Your task to perform on an android device: Search for "asus rog" on amazon.com, select the first entry, and add it to the cart. Image 0: 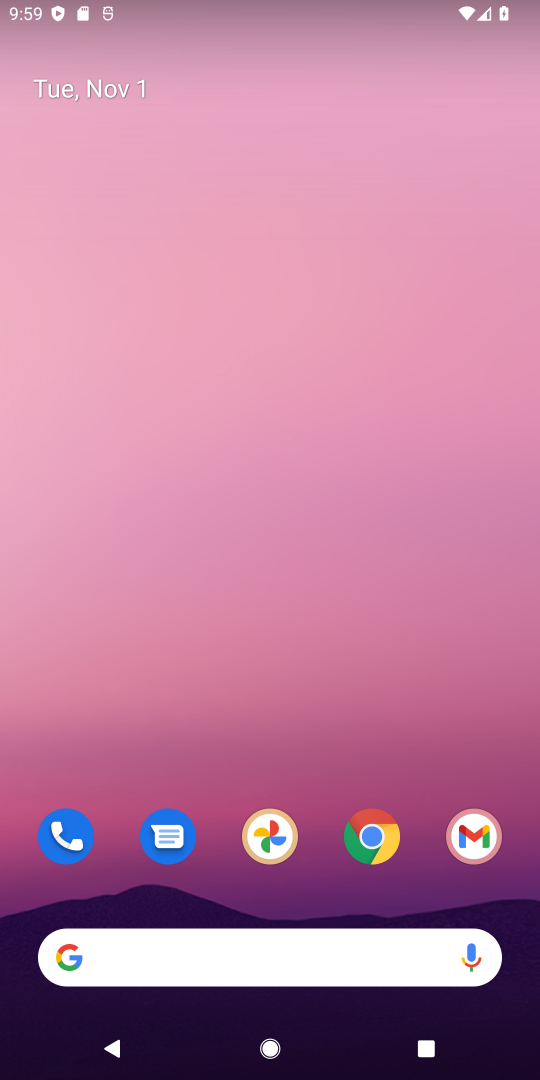
Step 0: click (368, 830)
Your task to perform on an android device: Search for "asus rog" on amazon.com, select the first entry, and add it to the cart. Image 1: 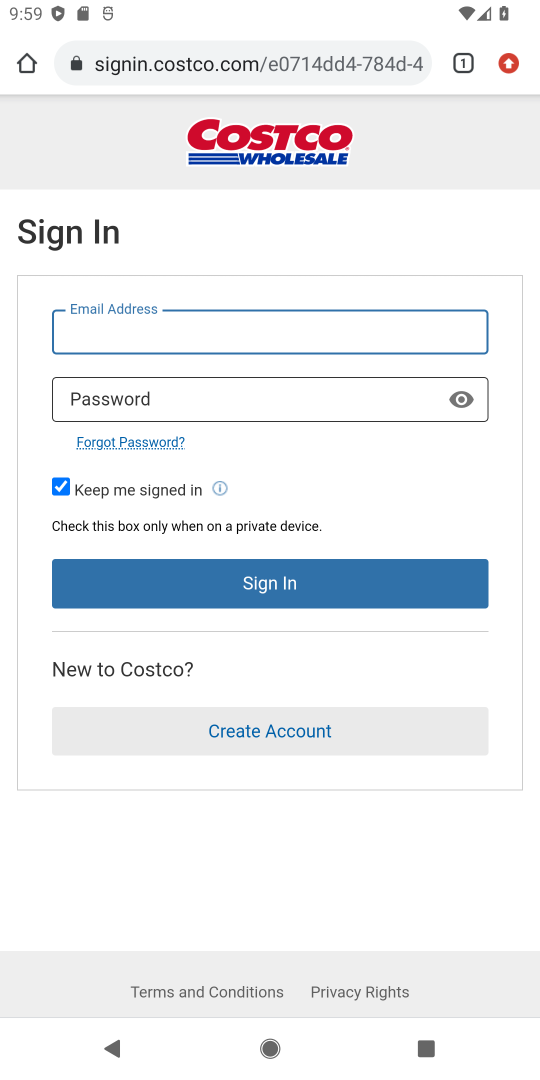
Step 1: click (170, 51)
Your task to perform on an android device: Search for "asus rog" on amazon.com, select the first entry, and add it to the cart. Image 2: 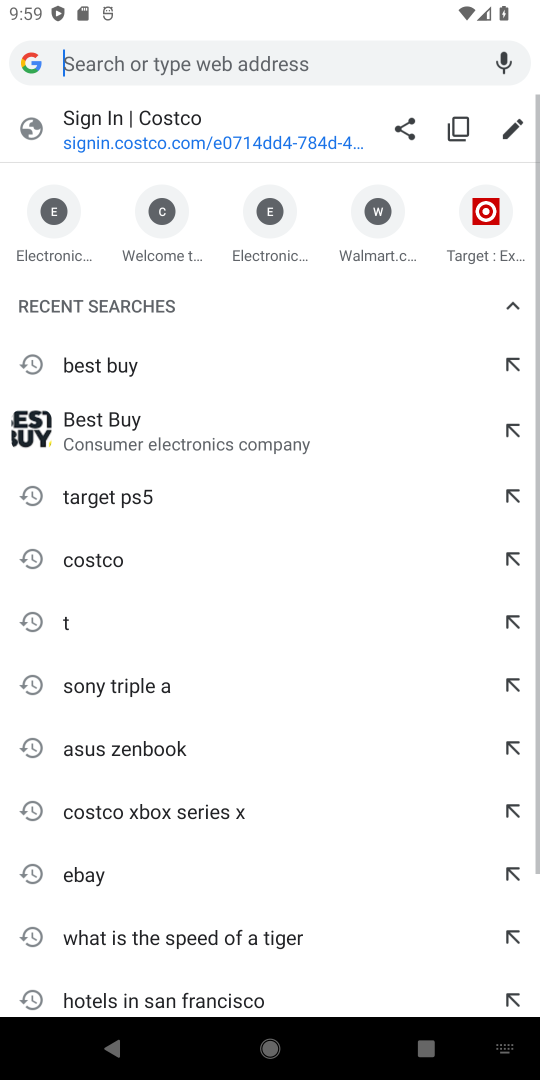
Step 2: type " amazon.com"
Your task to perform on an android device: Search for "asus rog" on amazon.com, select the first entry, and add it to the cart. Image 3: 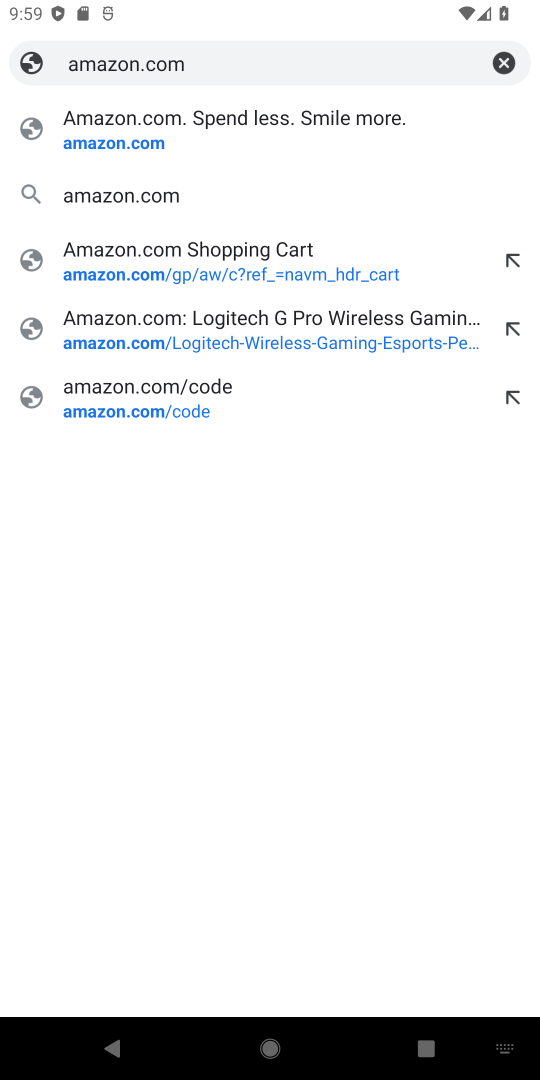
Step 3: click (166, 142)
Your task to perform on an android device: Search for "asus rog" on amazon.com, select the first entry, and add it to the cart. Image 4: 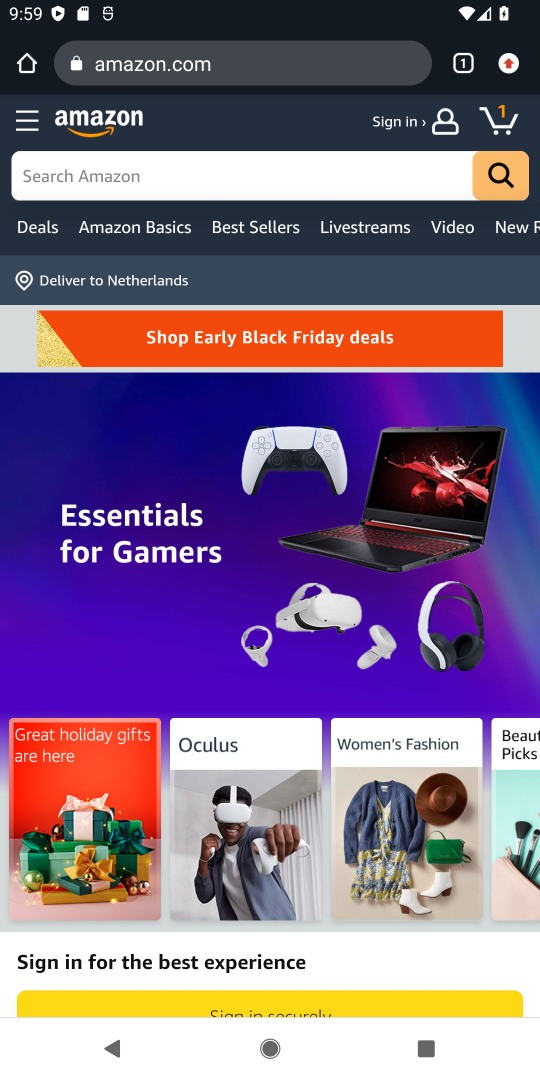
Step 4: click (250, 183)
Your task to perform on an android device: Search for "asus rog" on amazon.com, select the first entry, and add it to the cart. Image 5: 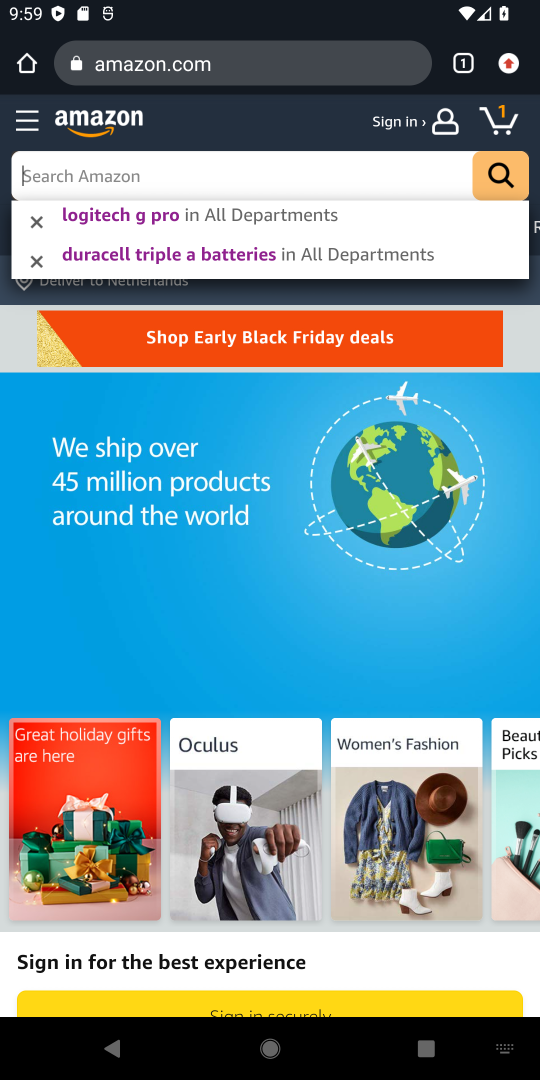
Step 5: type "asus rog"
Your task to perform on an android device: Search for "asus rog" on amazon.com, select the first entry, and add it to the cart. Image 6: 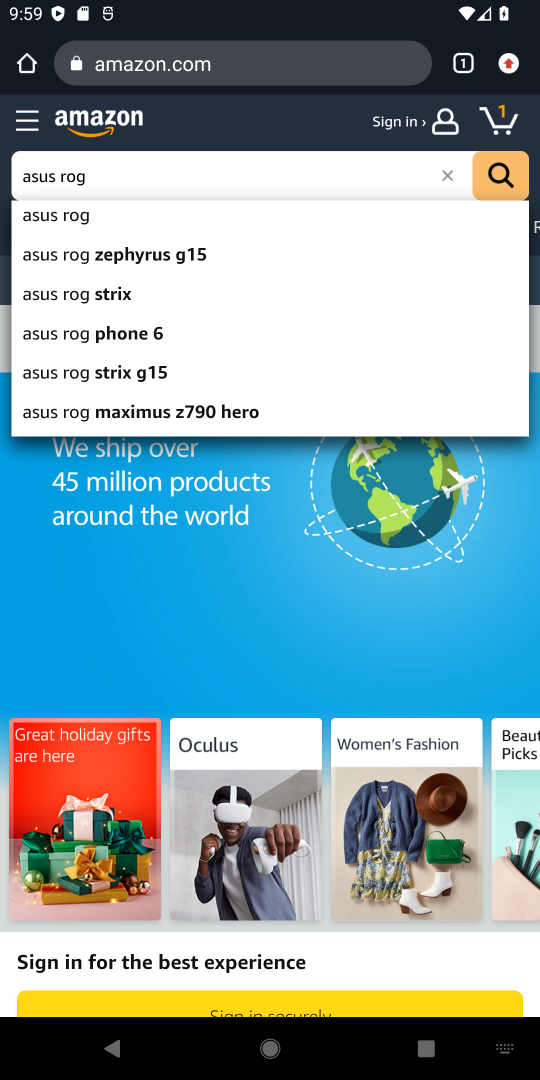
Step 6: click (77, 223)
Your task to perform on an android device: Search for "asus rog" on amazon.com, select the first entry, and add it to the cart. Image 7: 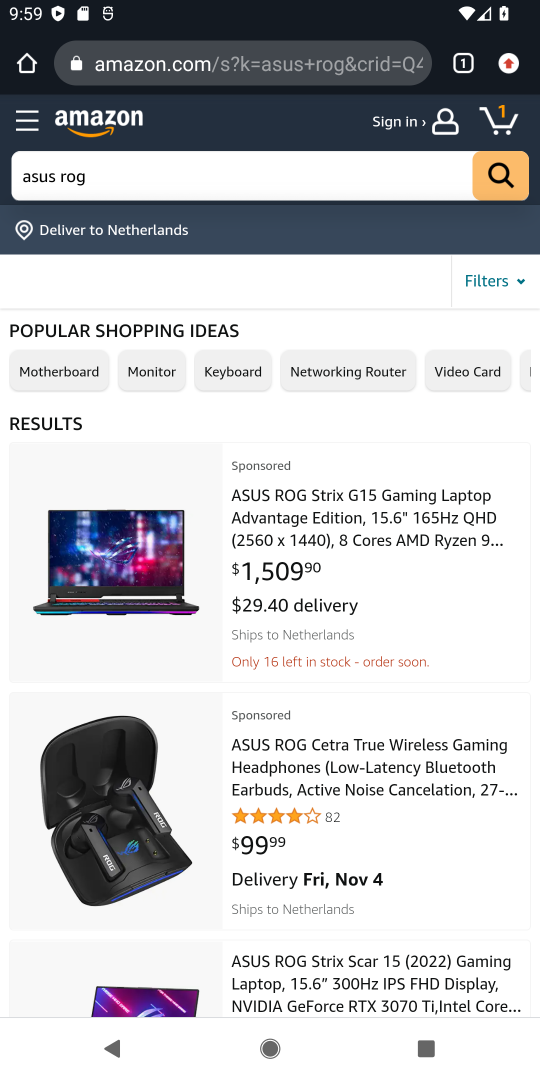
Step 7: click (258, 513)
Your task to perform on an android device: Search for "asus rog" on amazon.com, select the first entry, and add it to the cart. Image 8: 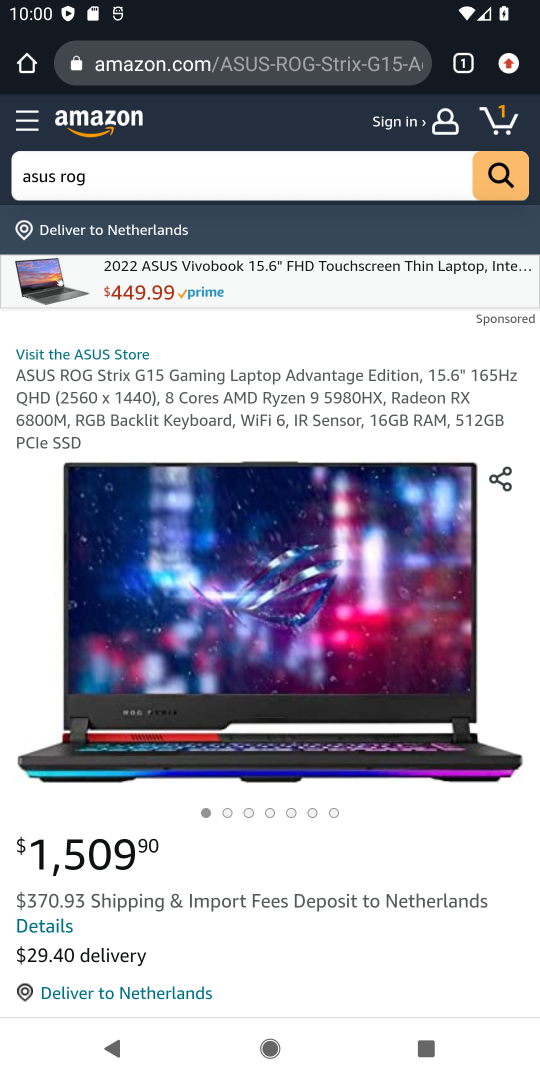
Step 8: drag from (350, 828) to (322, 329)
Your task to perform on an android device: Search for "asus rog" on amazon.com, select the first entry, and add it to the cart. Image 9: 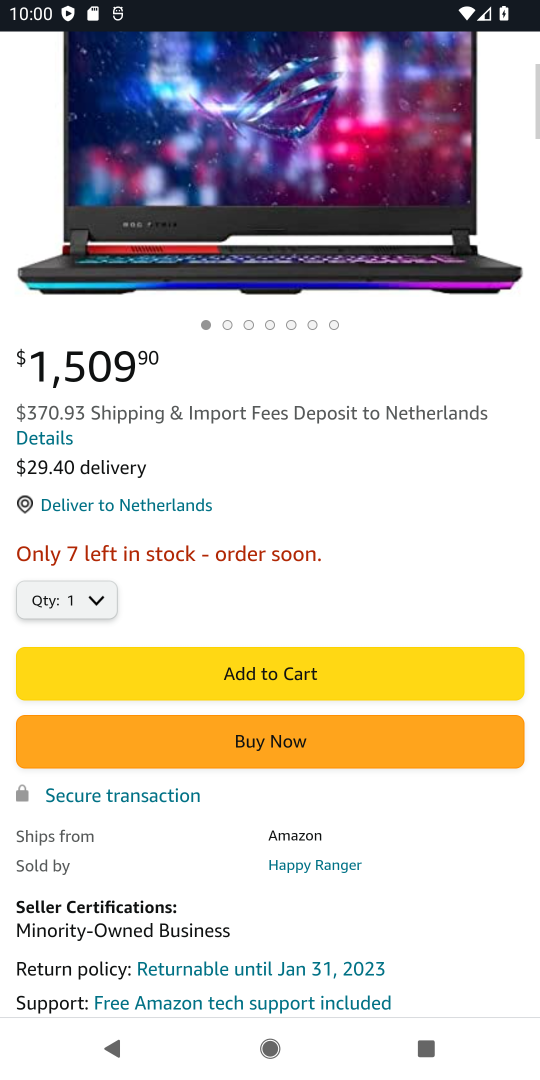
Step 9: click (330, 437)
Your task to perform on an android device: Search for "asus rog" on amazon.com, select the first entry, and add it to the cart. Image 10: 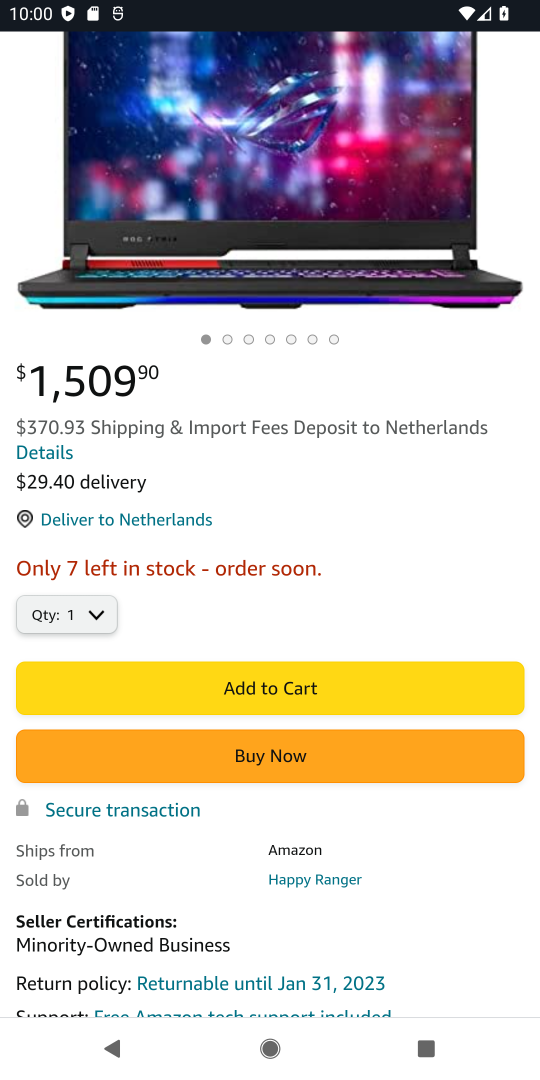
Step 10: click (287, 669)
Your task to perform on an android device: Search for "asus rog" on amazon.com, select the first entry, and add it to the cart. Image 11: 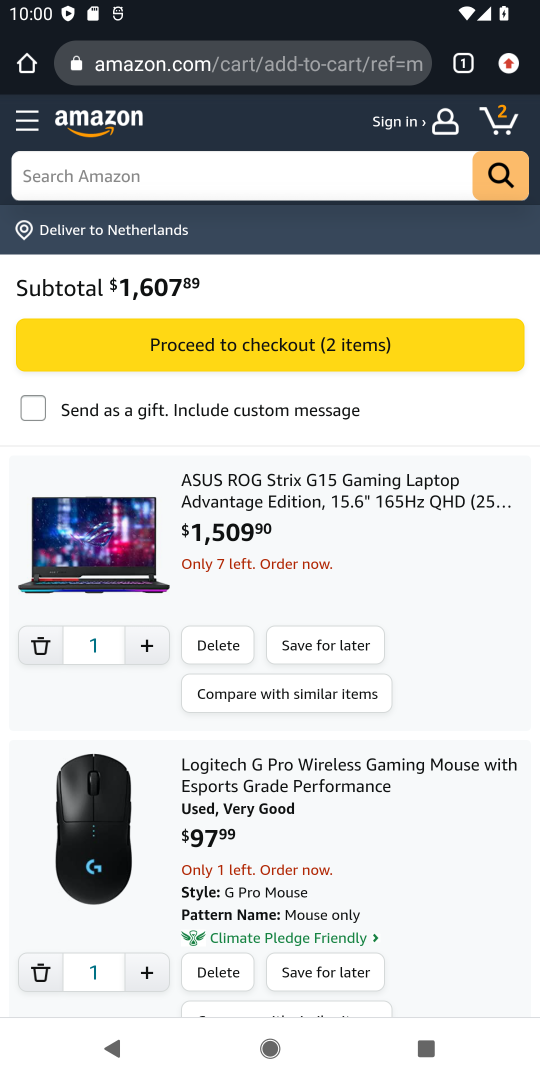
Step 11: click (490, 96)
Your task to perform on an android device: Search for "asus rog" on amazon.com, select the first entry, and add it to the cart. Image 12: 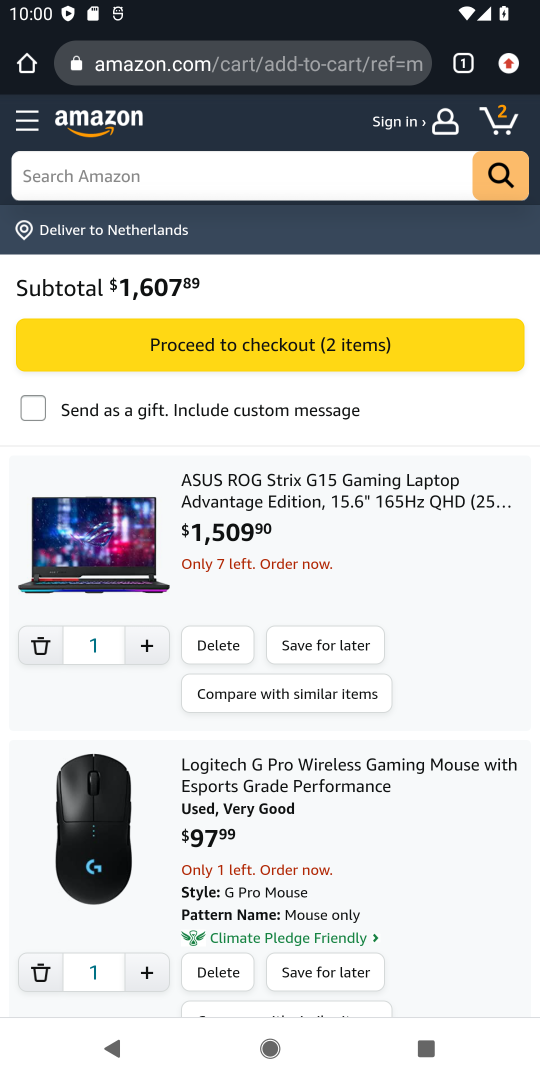
Step 12: click (489, 123)
Your task to perform on an android device: Search for "asus rog" on amazon.com, select the first entry, and add it to the cart. Image 13: 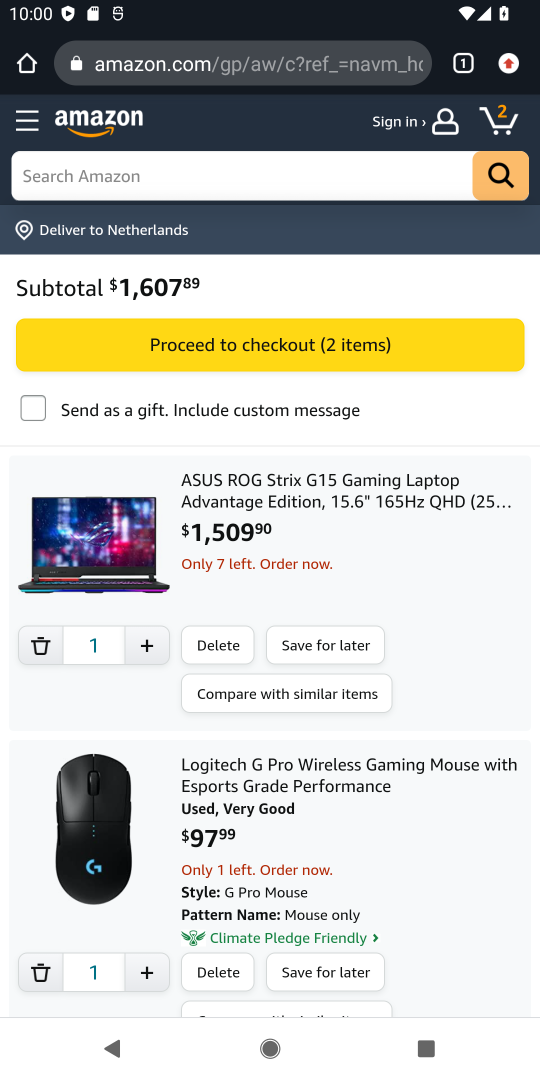
Step 13: click (194, 985)
Your task to perform on an android device: Search for "asus rog" on amazon.com, select the first entry, and add it to the cart. Image 14: 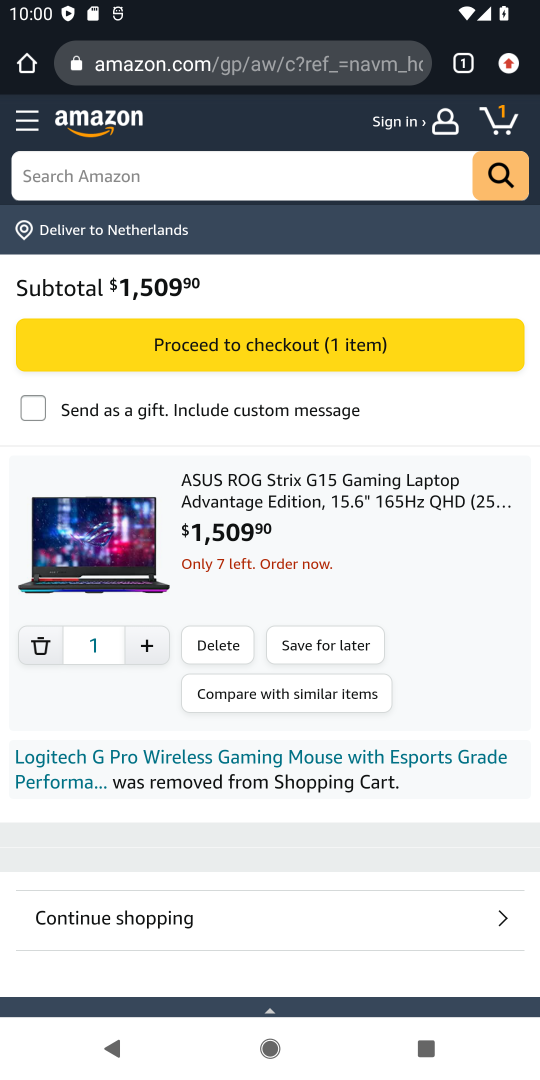
Step 14: click (110, 314)
Your task to perform on an android device: Search for "asus rog" on amazon.com, select the first entry, and add it to the cart. Image 15: 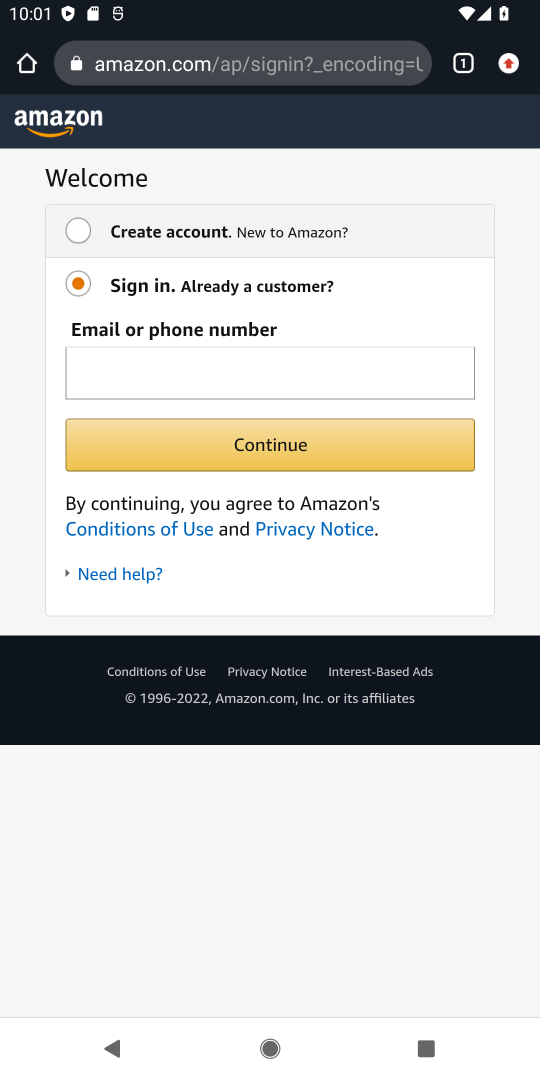
Step 15: task complete